Your task to perform on an android device: turn off notifications settings in the gmail app Image 0: 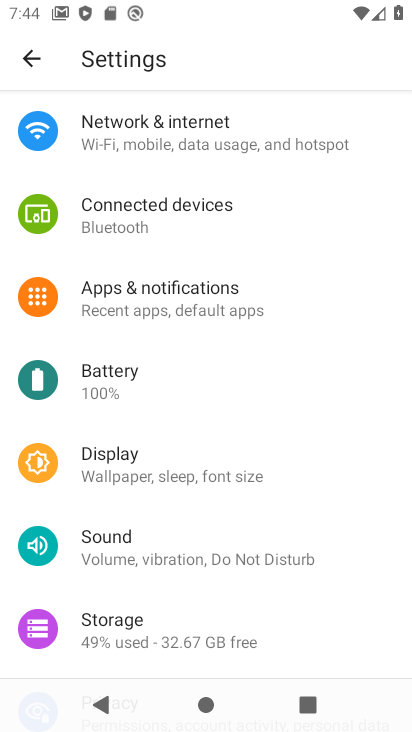
Step 0: drag from (268, 443) to (246, 219)
Your task to perform on an android device: turn off notifications settings in the gmail app Image 1: 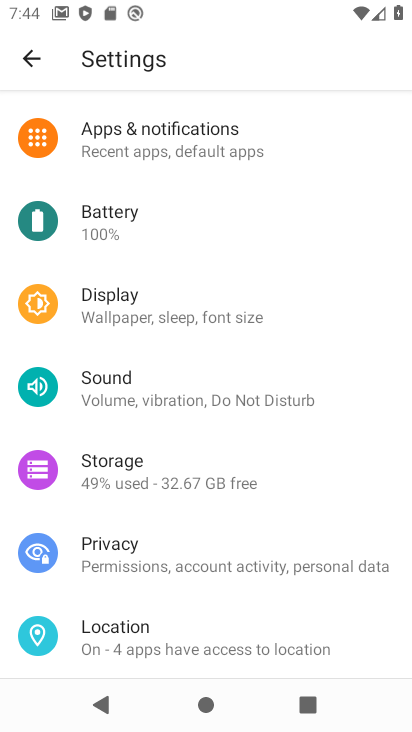
Step 1: drag from (202, 540) to (175, 319)
Your task to perform on an android device: turn off notifications settings in the gmail app Image 2: 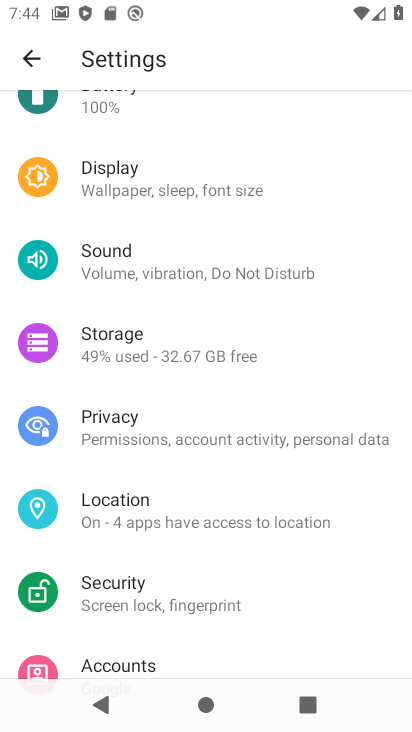
Step 2: press home button
Your task to perform on an android device: turn off notifications settings in the gmail app Image 3: 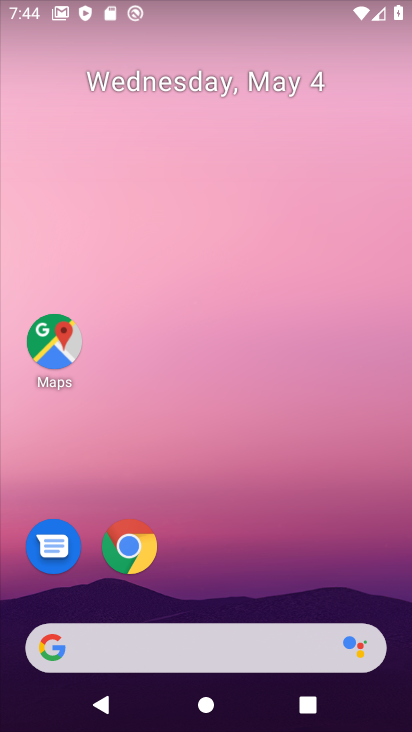
Step 3: drag from (323, 548) to (232, 0)
Your task to perform on an android device: turn off notifications settings in the gmail app Image 4: 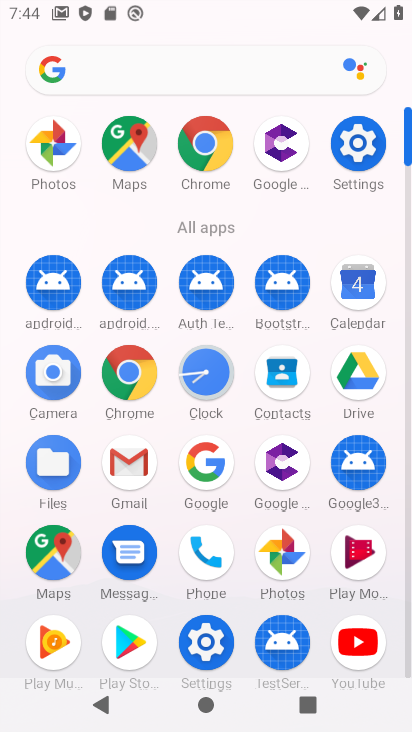
Step 4: click (125, 467)
Your task to perform on an android device: turn off notifications settings in the gmail app Image 5: 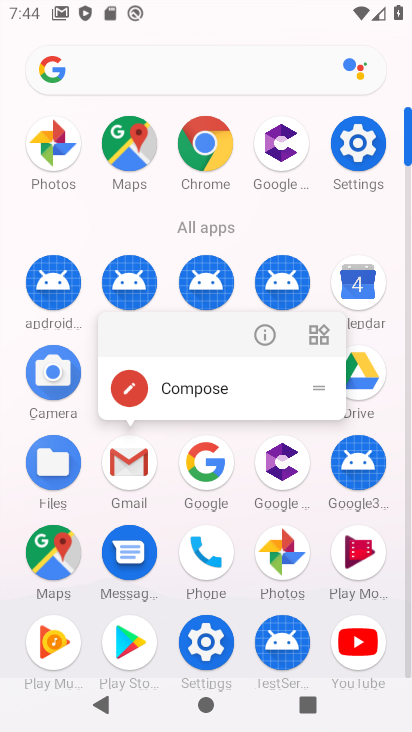
Step 5: click (267, 327)
Your task to perform on an android device: turn off notifications settings in the gmail app Image 6: 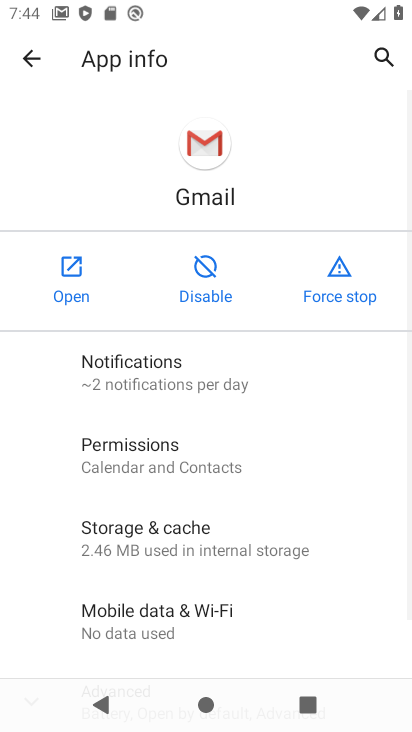
Step 6: click (183, 405)
Your task to perform on an android device: turn off notifications settings in the gmail app Image 7: 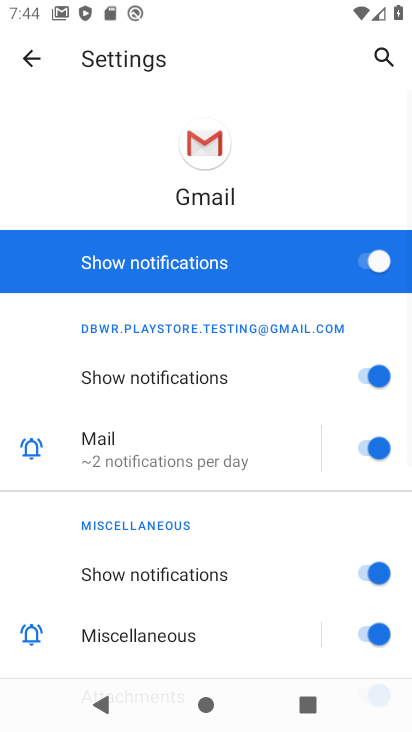
Step 7: click (380, 265)
Your task to perform on an android device: turn off notifications settings in the gmail app Image 8: 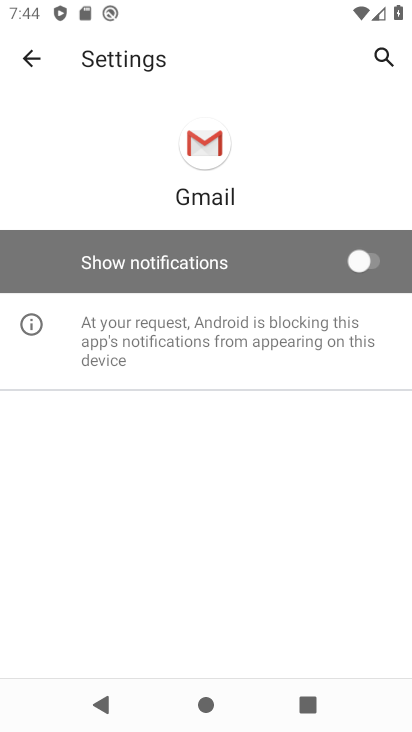
Step 8: task complete